Your task to perform on an android device: turn off sleep mode Image 0: 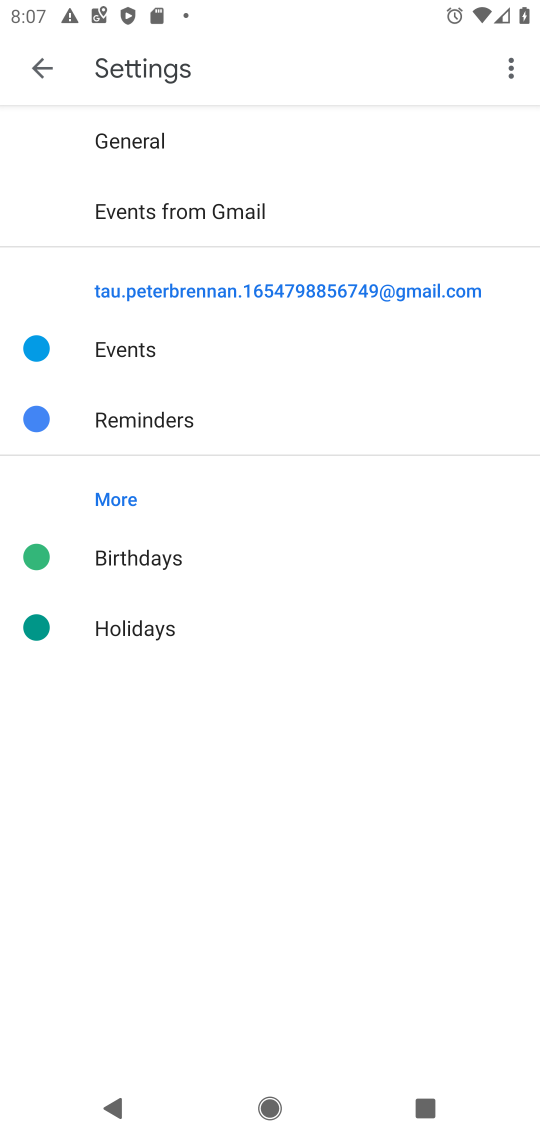
Step 0: press home button
Your task to perform on an android device: turn off sleep mode Image 1: 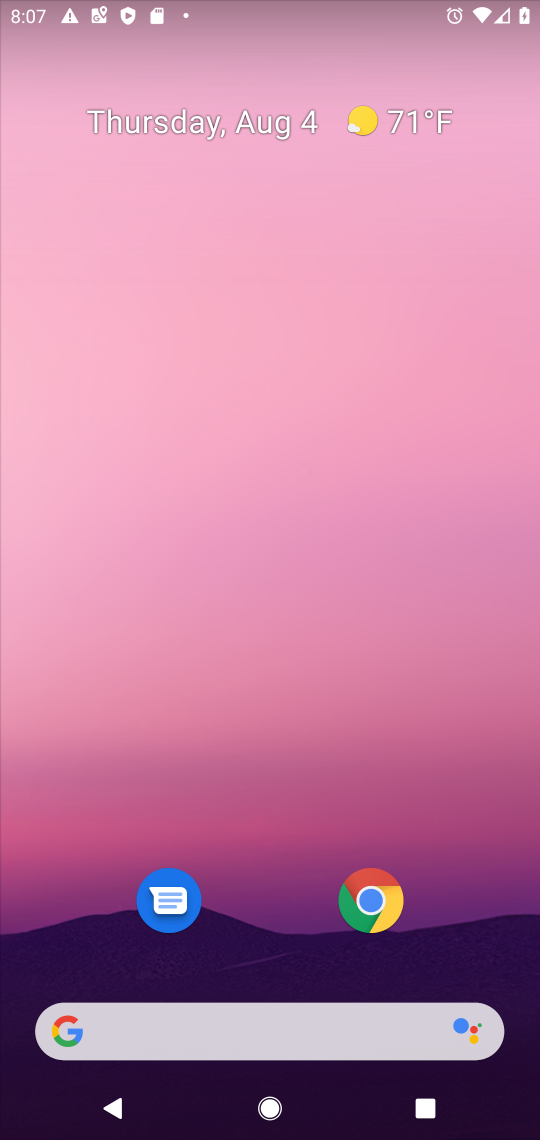
Step 1: drag from (229, 1030) to (277, 55)
Your task to perform on an android device: turn off sleep mode Image 2: 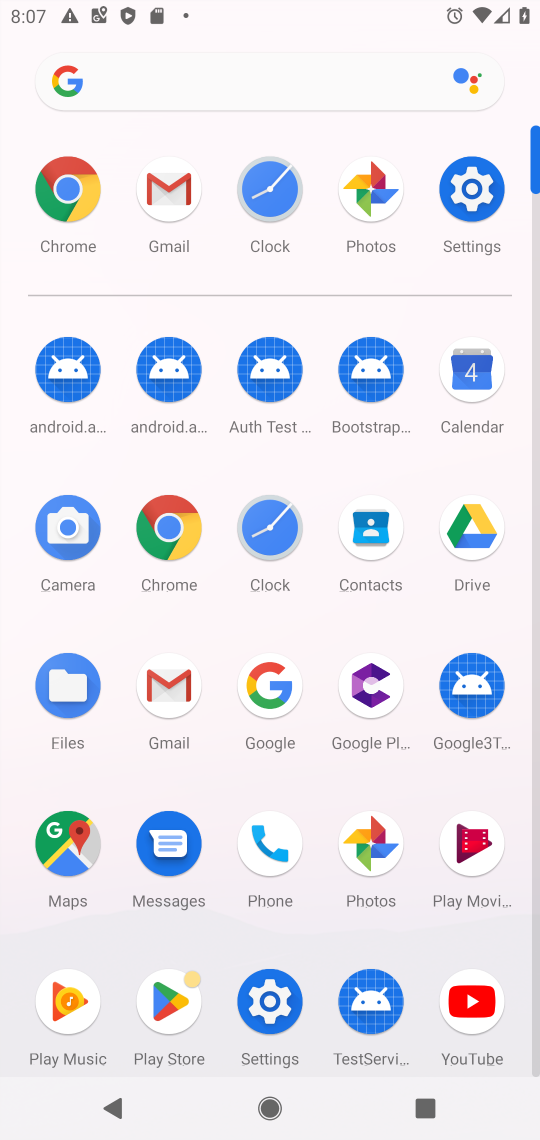
Step 2: click (471, 194)
Your task to perform on an android device: turn off sleep mode Image 3: 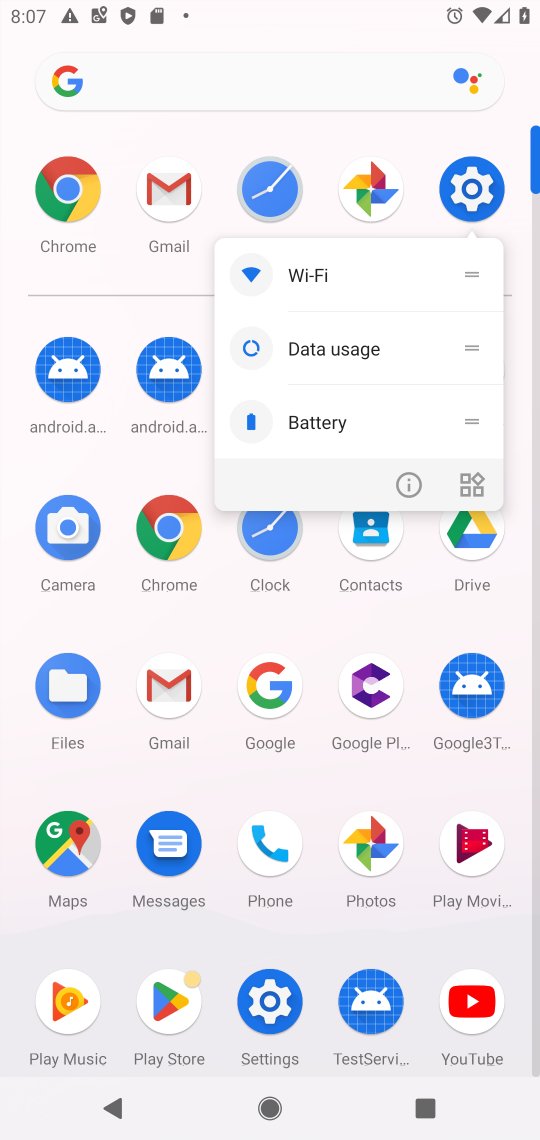
Step 3: click (469, 187)
Your task to perform on an android device: turn off sleep mode Image 4: 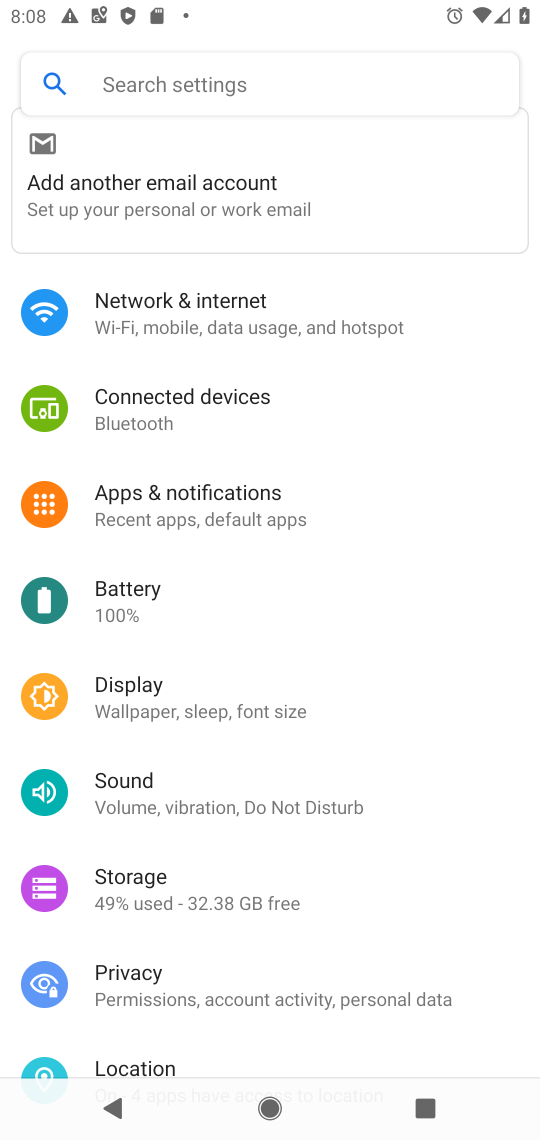
Step 4: click (125, 702)
Your task to perform on an android device: turn off sleep mode Image 5: 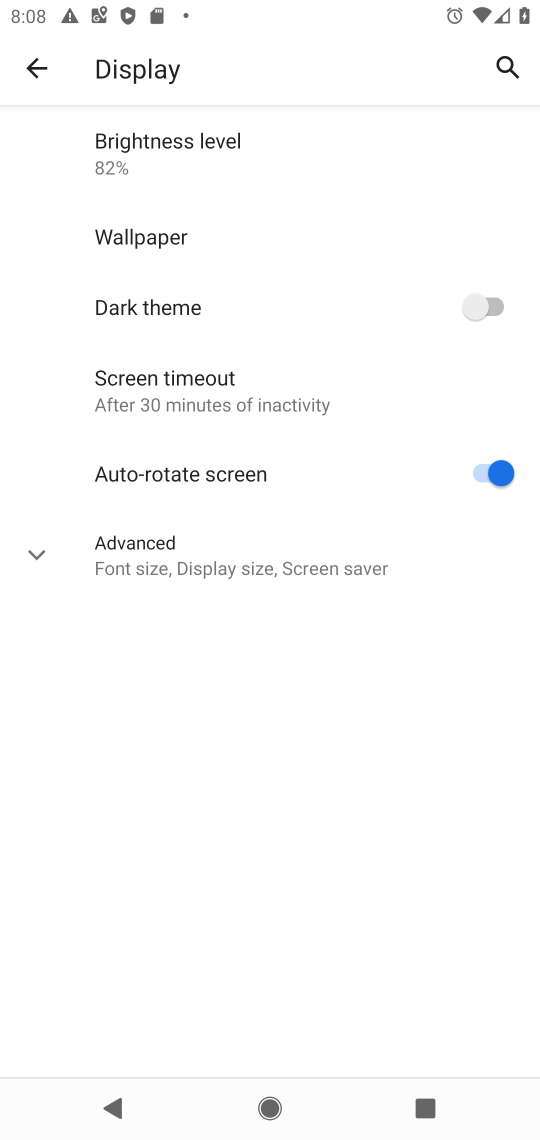
Step 5: click (169, 410)
Your task to perform on an android device: turn off sleep mode Image 6: 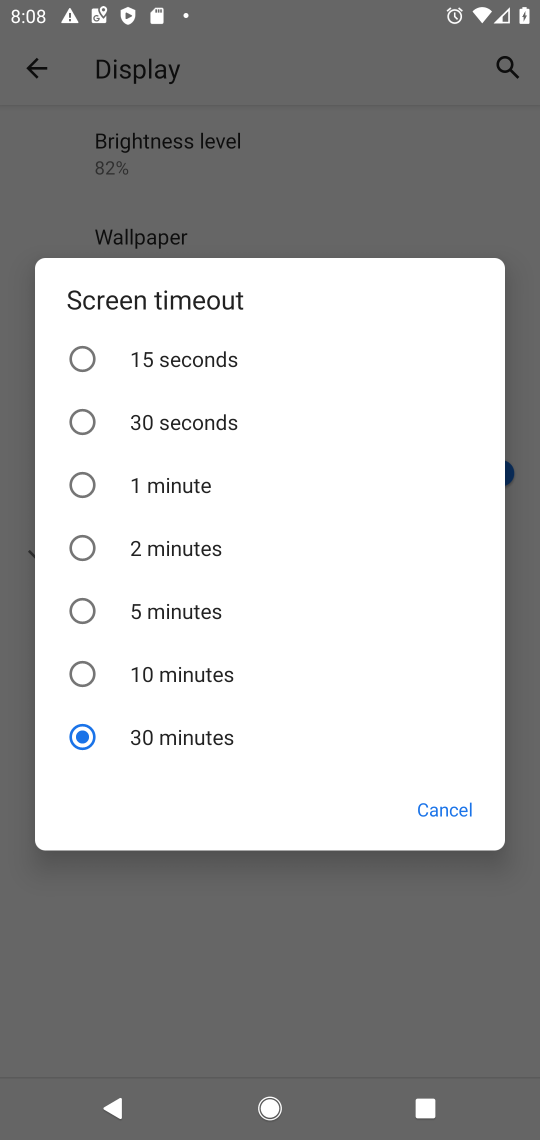
Step 6: click (445, 808)
Your task to perform on an android device: turn off sleep mode Image 7: 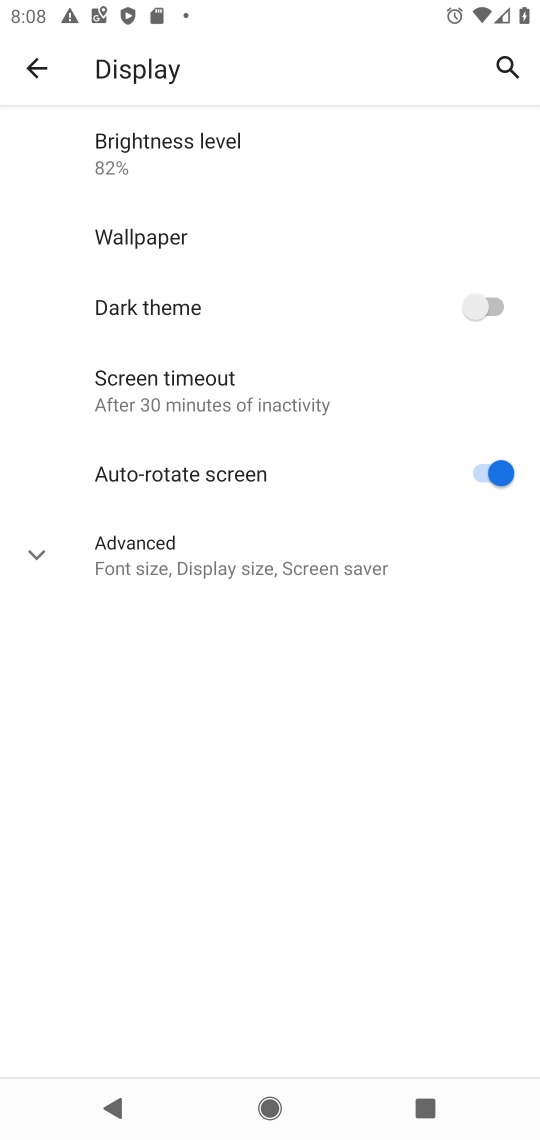
Step 7: task complete